Your task to perform on an android device: toggle location history Image 0: 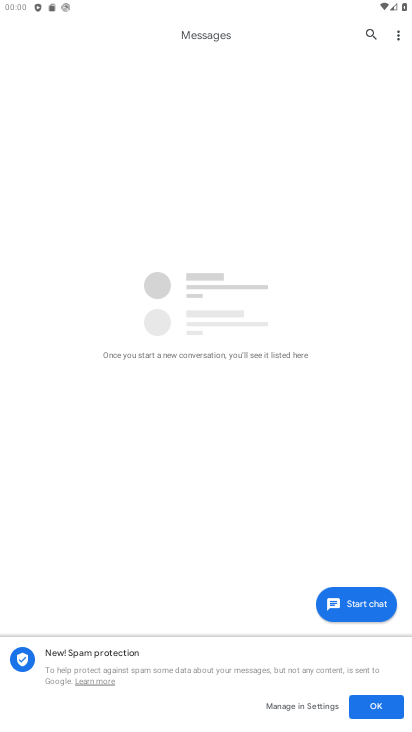
Step 0: press home button
Your task to perform on an android device: toggle location history Image 1: 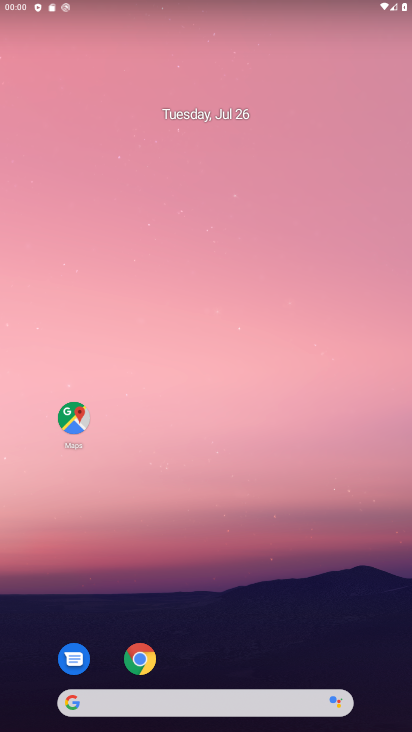
Step 1: drag from (240, 647) to (277, 38)
Your task to perform on an android device: toggle location history Image 2: 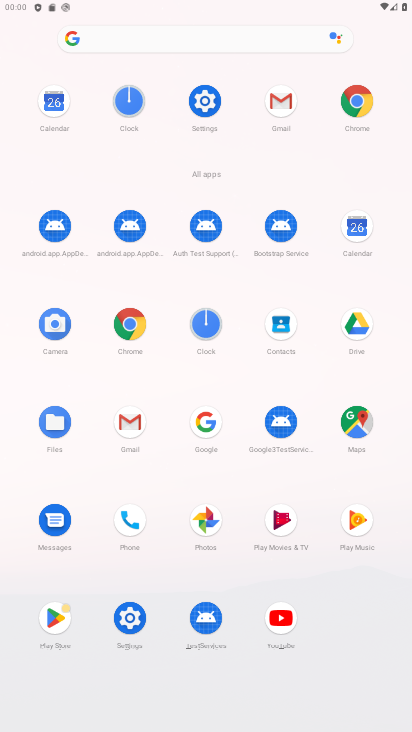
Step 2: click (203, 94)
Your task to perform on an android device: toggle location history Image 3: 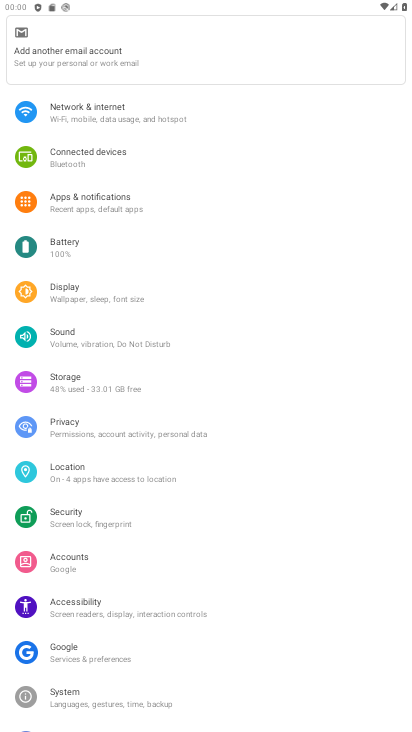
Step 3: click (96, 477)
Your task to perform on an android device: toggle location history Image 4: 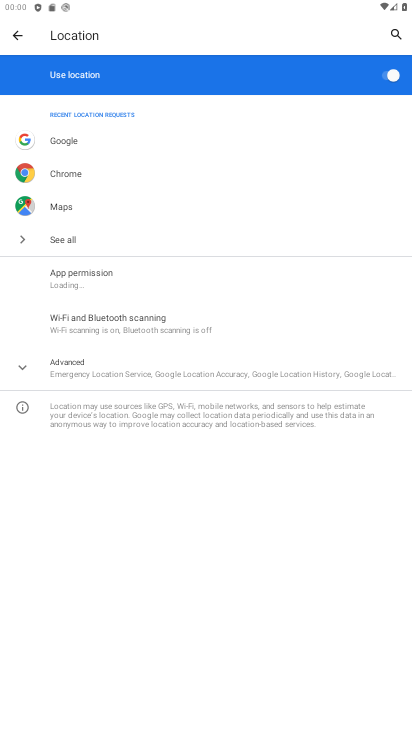
Step 4: click (112, 374)
Your task to perform on an android device: toggle location history Image 5: 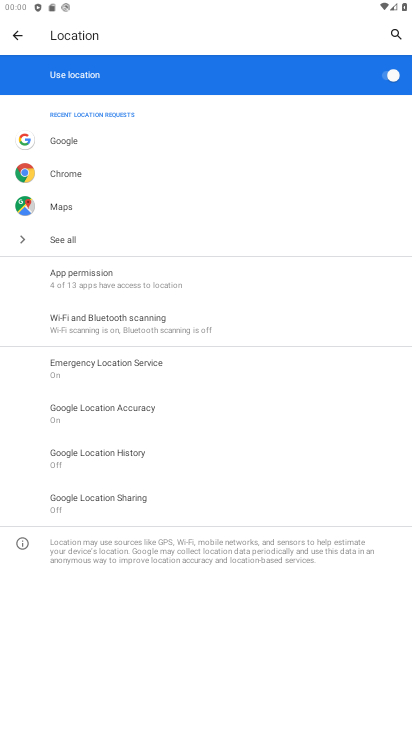
Step 5: click (138, 451)
Your task to perform on an android device: toggle location history Image 6: 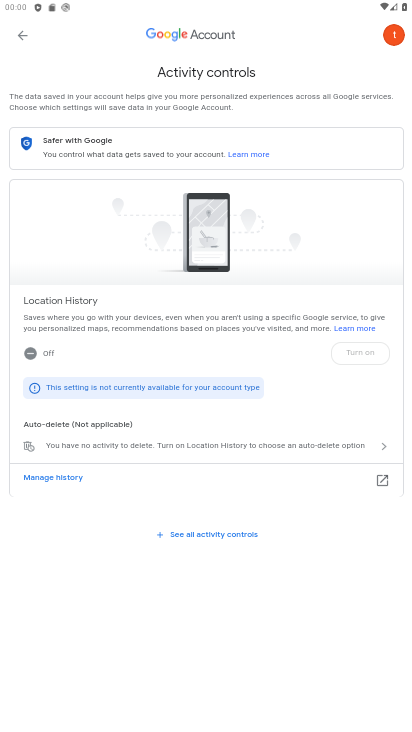
Step 6: task complete